Your task to perform on an android device: Search for lg ultragear on costco.com, select the first entry, and add it to the cart. Image 0: 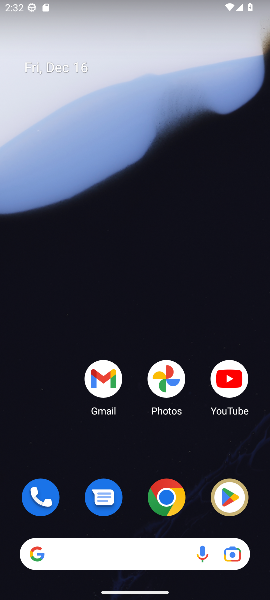
Step 0: task complete